Your task to perform on an android device: What's the weather? Image 0: 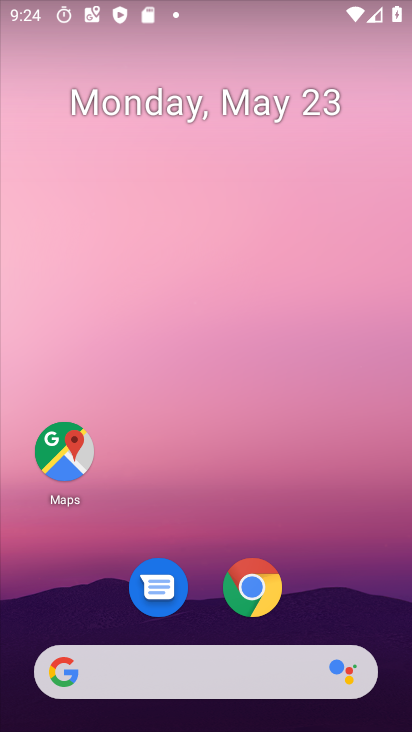
Step 0: drag from (337, 582) to (251, 21)
Your task to perform on an android device: What's the weather? Image 1: 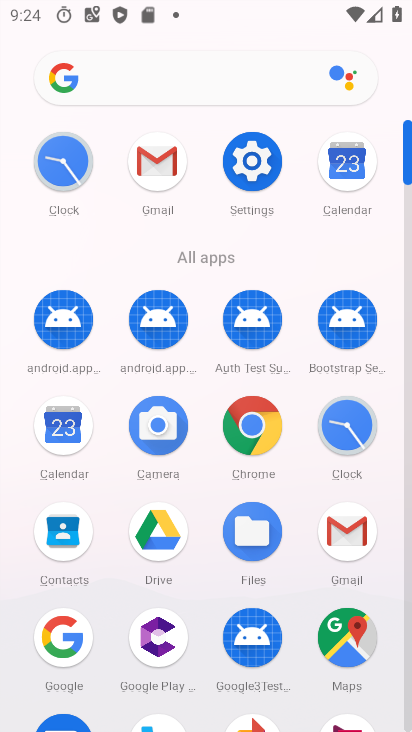
Step 1: click (46, 643)
Your task to perform on an android device: What's the weather? Image 2: 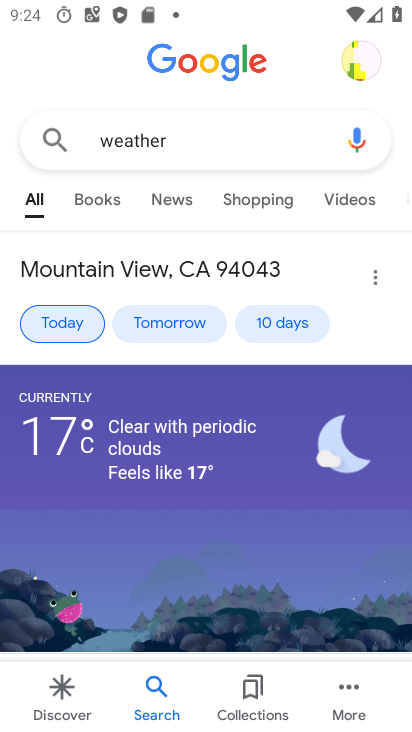
Step 2: task complete